Your task to perform on an android device: Go to privacy settings Image 0: 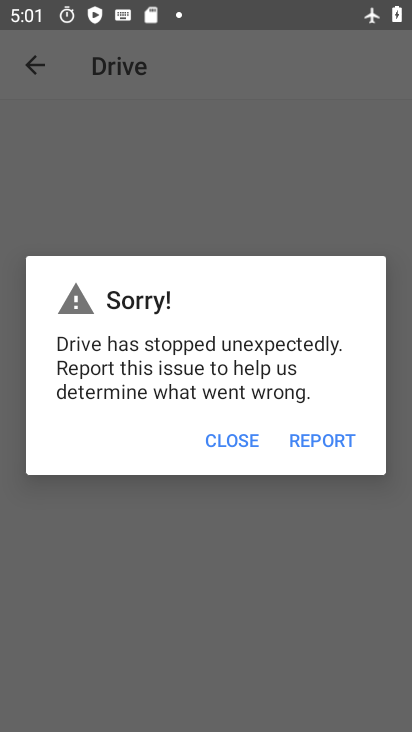
Step 0: press home button
Your task to perform on an android device: Go to privacy settings Image 1: 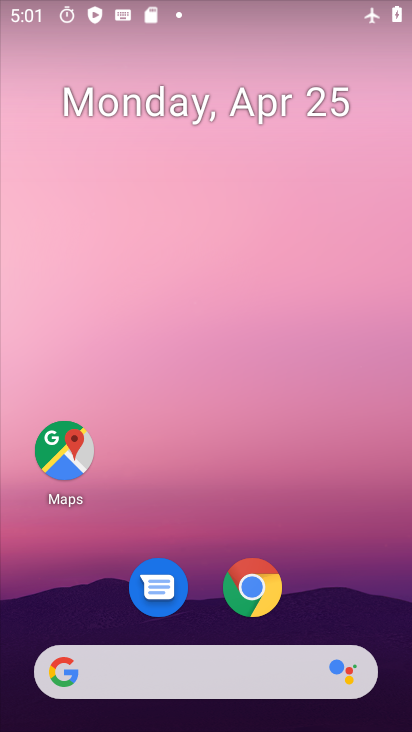
Step 1: drag from (335, 579) to (355, 211)
Your task to perform on an android device: Go to privacy settings Image 2: 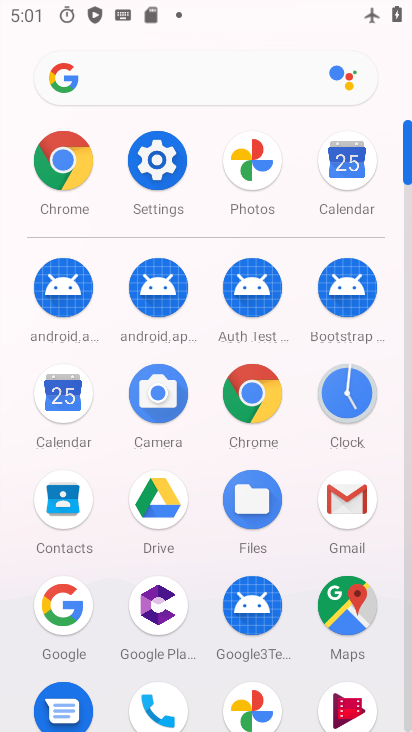
Step 2: click (149, 157)
Your task to perform on an android device: Go to privacy settings Image 3: 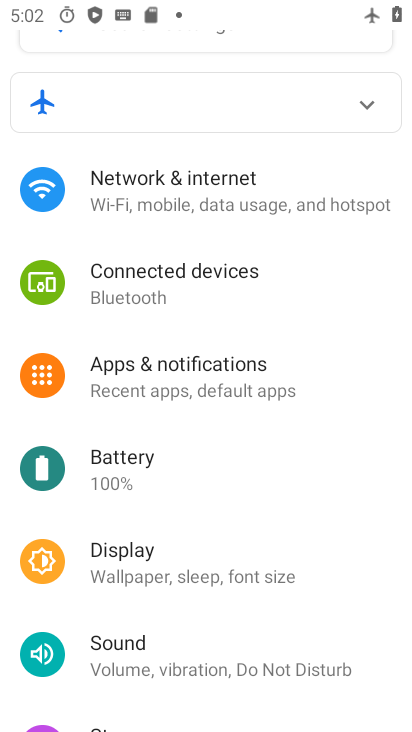
Step 3: drag from (215, 460) to (279, 98)
Your task to perform on an android device: Go to privacy settings Image 4: 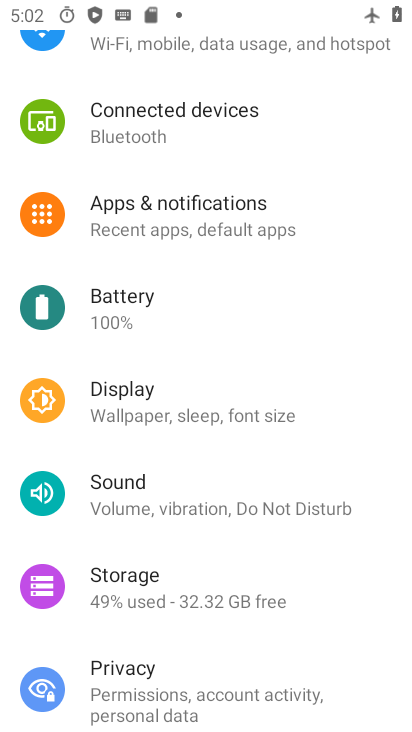
Step 4: drag from (215, 572) to (332, 112)
Your task to perform on an android device: Go to privacy settings Image 5: 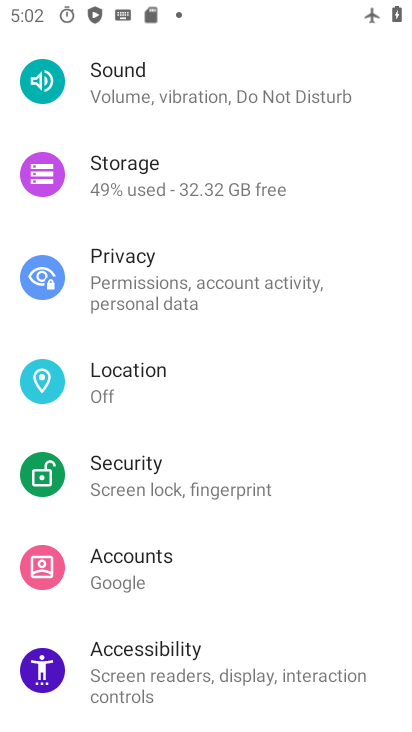
Step 5: click (119, 266)
Your task to perform on an android device: Go to privacy settings Image 6: 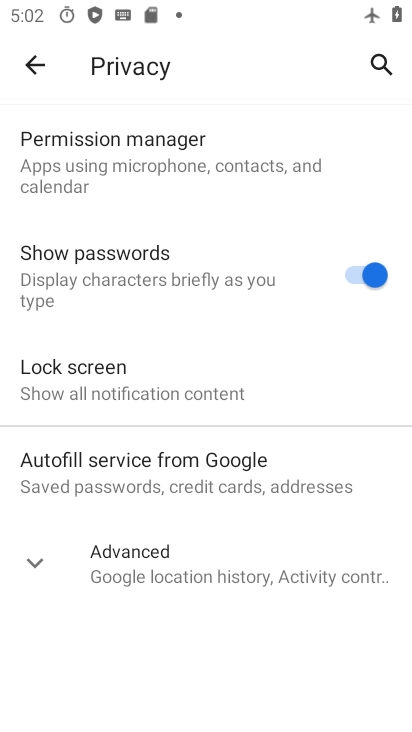
Step 6: task complete